Your task to perform on an android device: Open Google Maps Image 0: 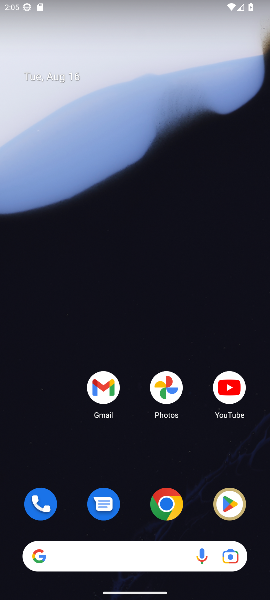
Step 0: drag from (144, 514) to (127, 7)
Your task to perform on an android device: Open Google Maps Image 1: 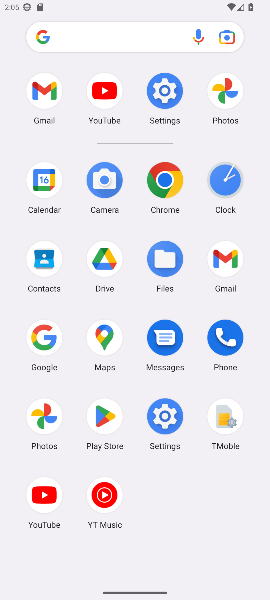
Step 1: click (104, 330)
Your task to perform on an android device: Open Google Maps Image 2: 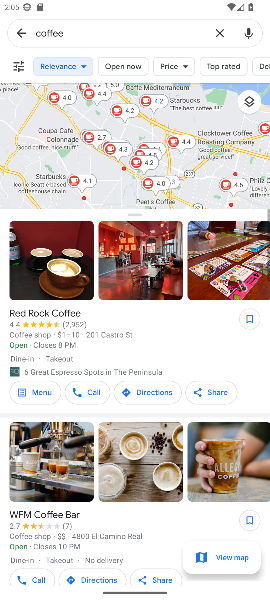
Step 2: click (19, 30)
Your task to perform on an android device: Open Google Maps Image 3: 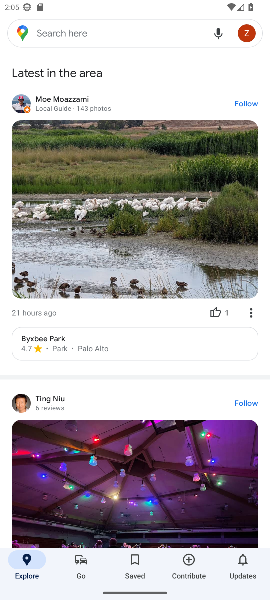
Step 3: task complete